Your task to perform on an android device: Show me recent news Image 0: 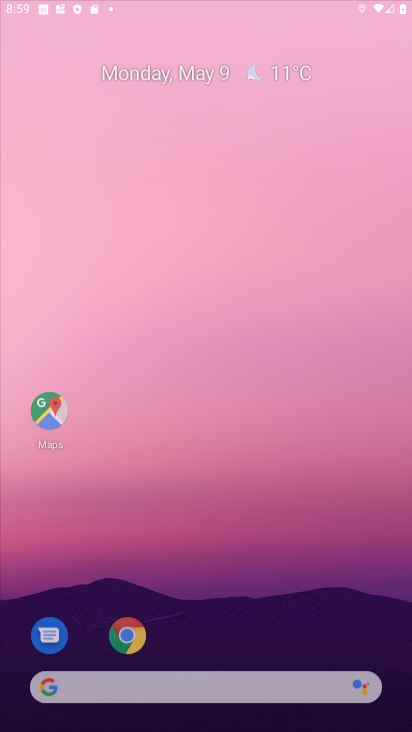
Step 0: drag from (181, 573) to (55, 0)
Your task to perform on an android device: Show me recent news Image 1: 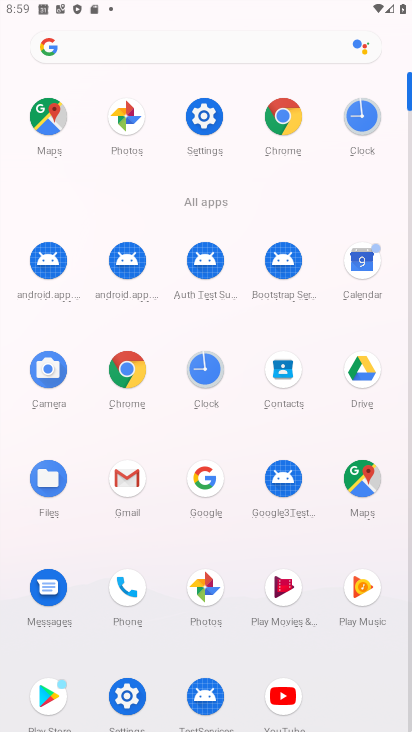
Step 1: click (197, 483)
Your task to perform on an android device: Show me recent news Image 2: 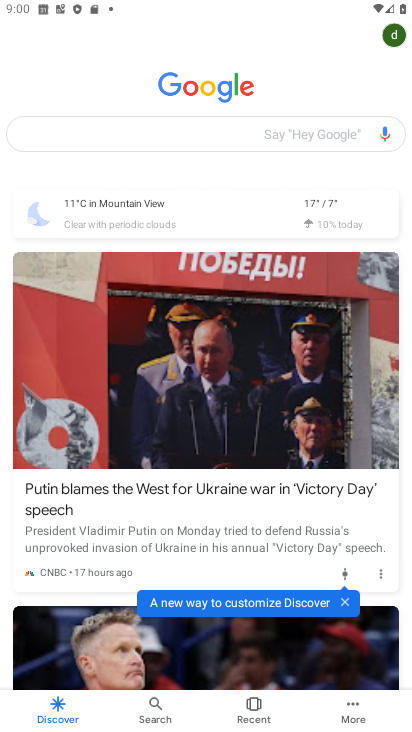
Step 2: task complete